Your task to perform on an android device: open app "Google Play Games" Image 0: 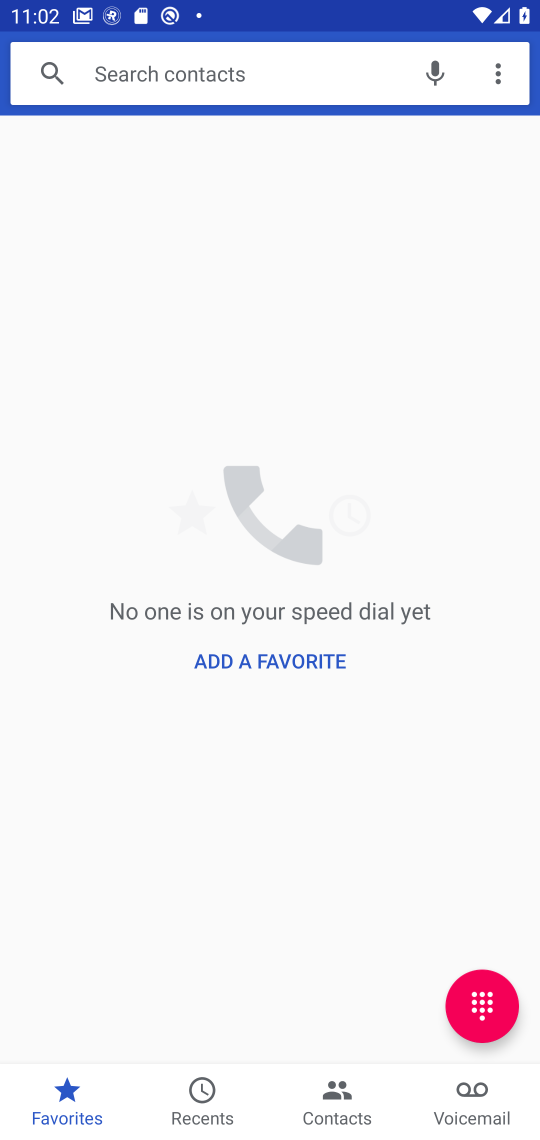
Step 0: press home button
Your task to perform on an android device: open app "Google Play Games" Image 1: 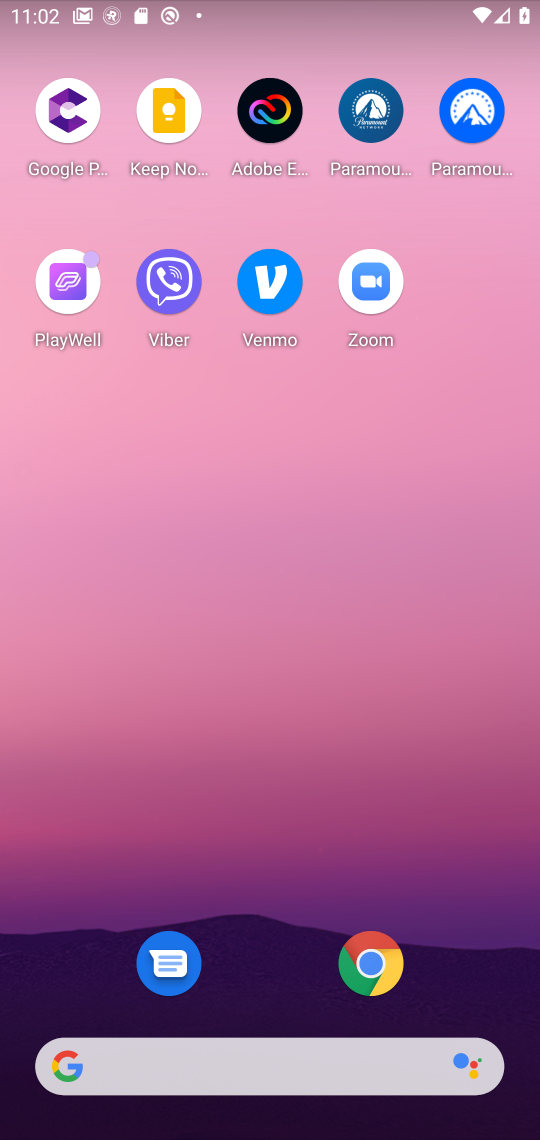
Step 1: drag from (283, 919) to (358, 109)
Your task to perform on an android device: open app "Google Play Games" Image 2: 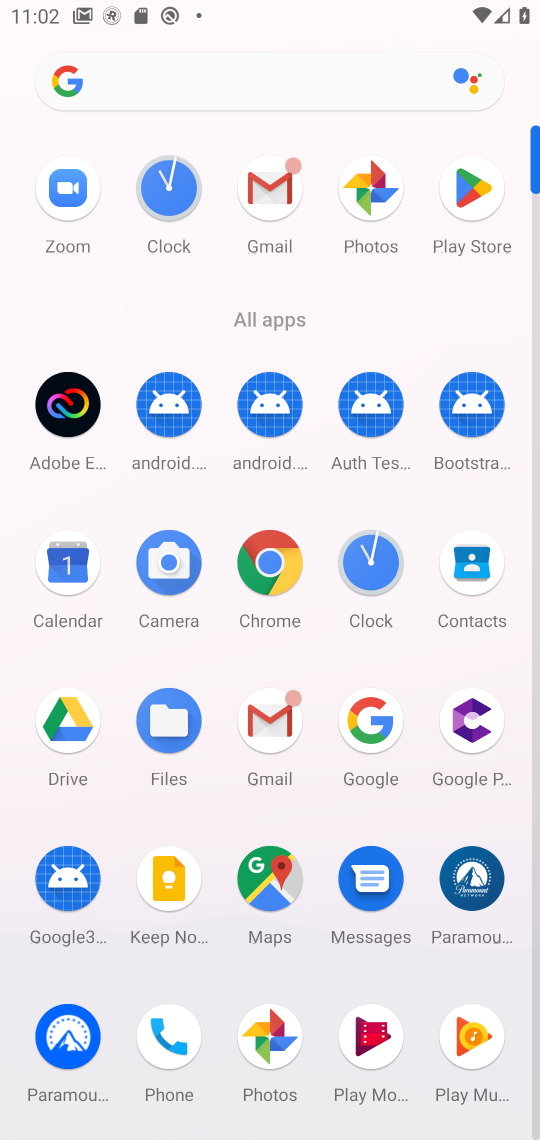
Step 2: click (468, 224)
Your task to perform on an android device: open app "Google Play Games" Image 3: 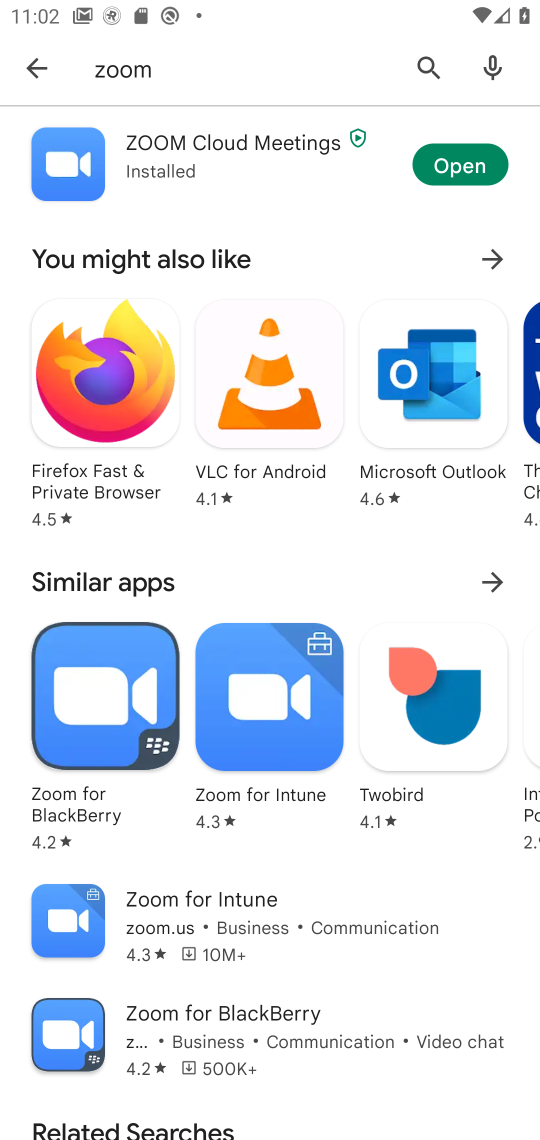
Step 3: click (212, 59)
Your task to perform on an android device: open app "Google Play Games" Image 4: 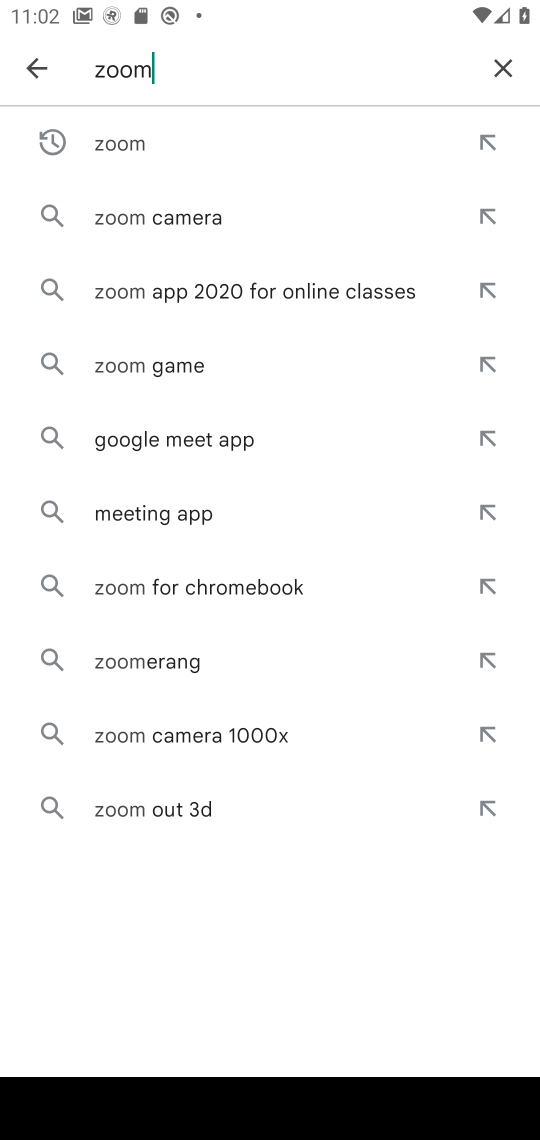
Step 4: click (488, 64)
Your task to perform on an android device: open app "Google Play Games" Image 5: 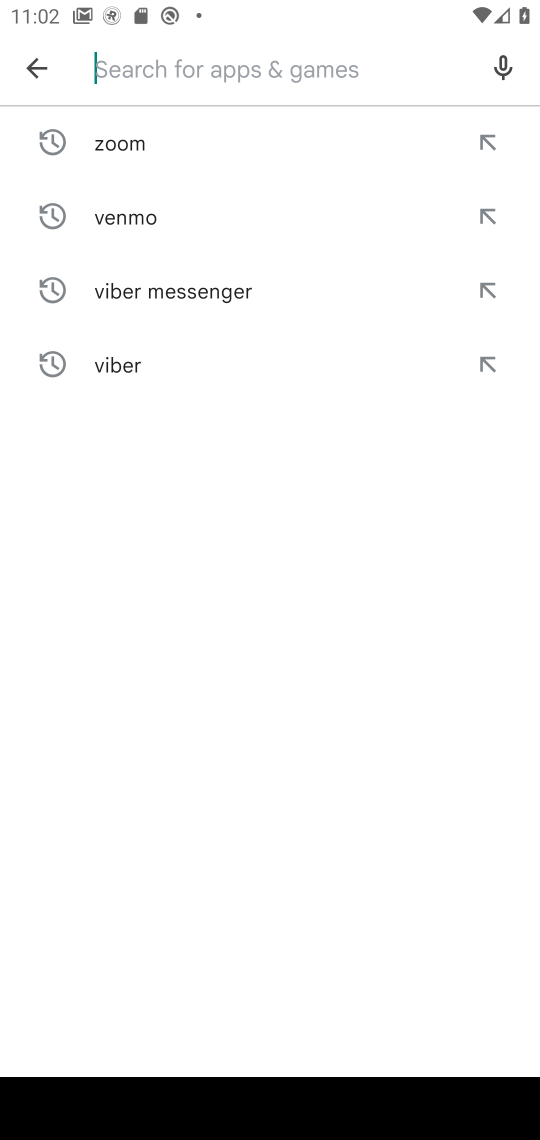
Step 5: type "google play games"
Your task to perform on an android device: open app "Google Play Games" Image 6: 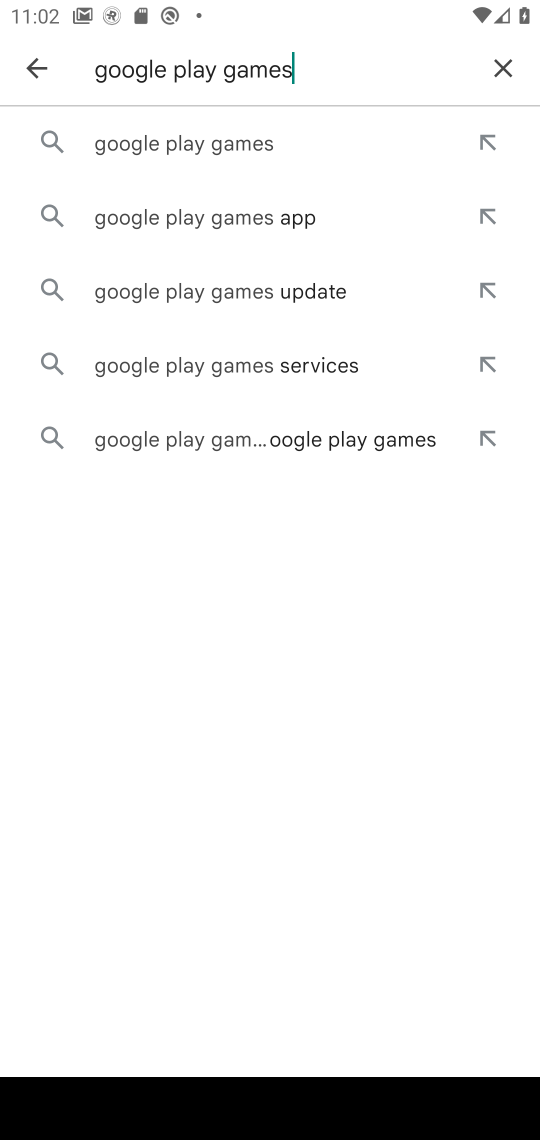
Step 6: click (172, 152)
Your task to perform on an android device: open app "Google Play Games" Image 7: 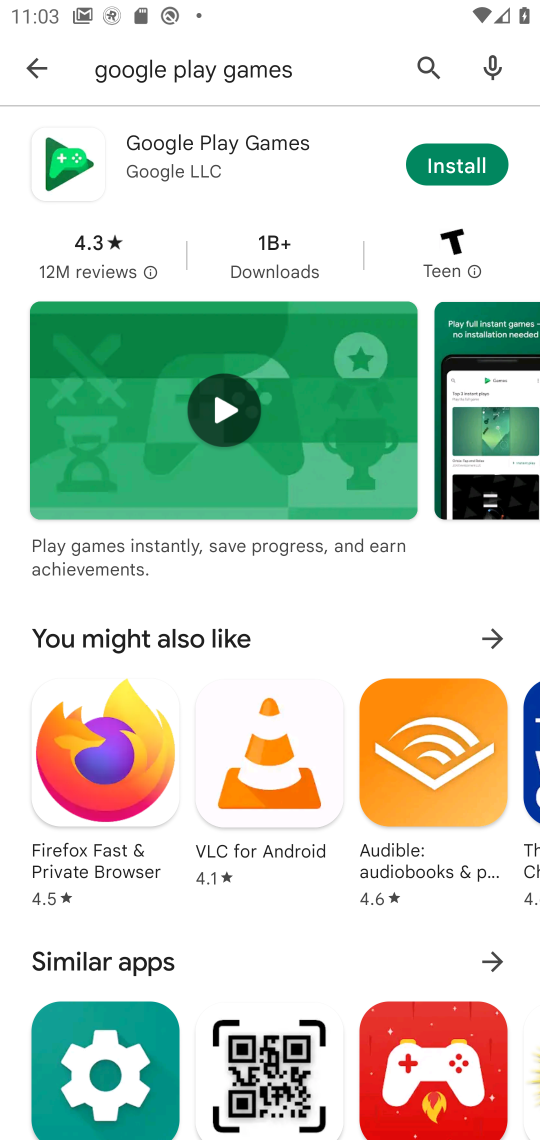
Step 7: task complete